Your task to perform on an android device: Open Google Chrome and open the bookmarks view Image 0: 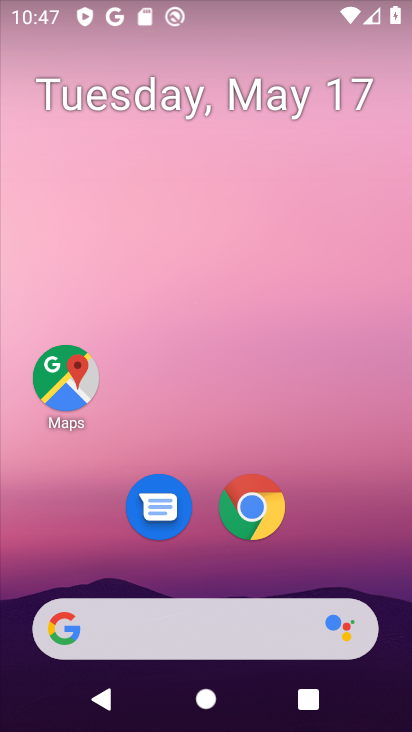
Step 0: click (266, 502)
Your task to perform on an android device: Open Google Chrome and open the bookmarks view Image 1: 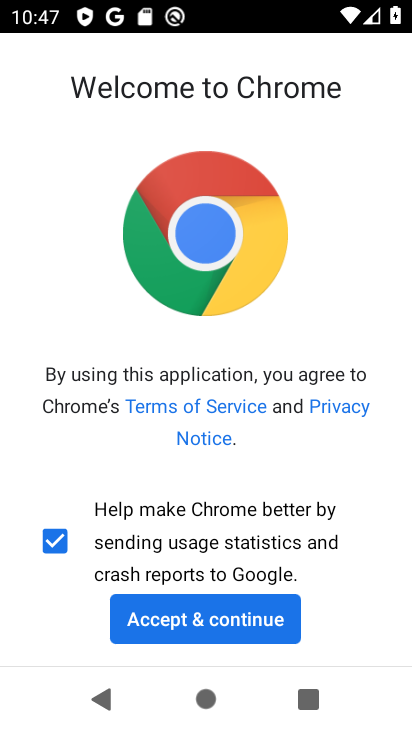
Step 1: click (259, 612)
Your task to perform on an android device: Open Google Chrome and open the bookmarks view Image 2: 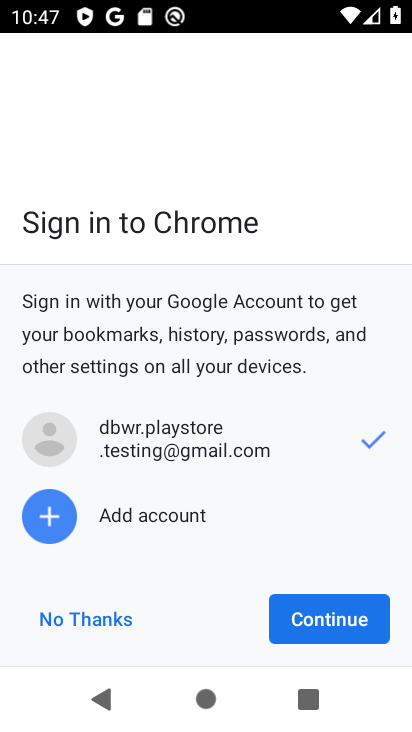
Step 2: click (300, 616)
Your task to perform on an android device: Open Google Chrome and open the bookmarks view Image 3: 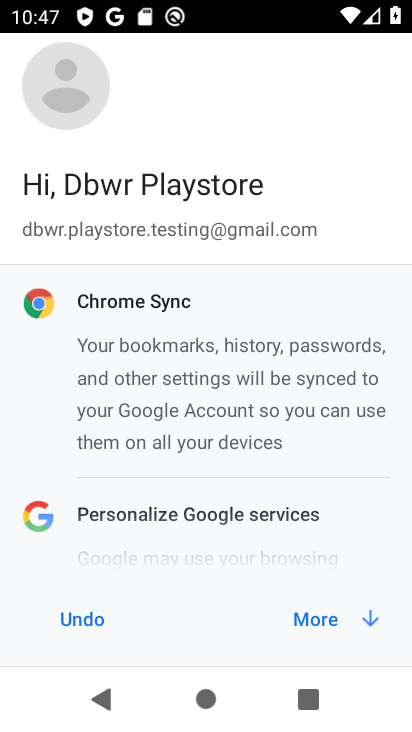
Step 3: click (300, 616)
Your task to perform on an android device: Open Google Chrome and open the bookmarks view Image 4: 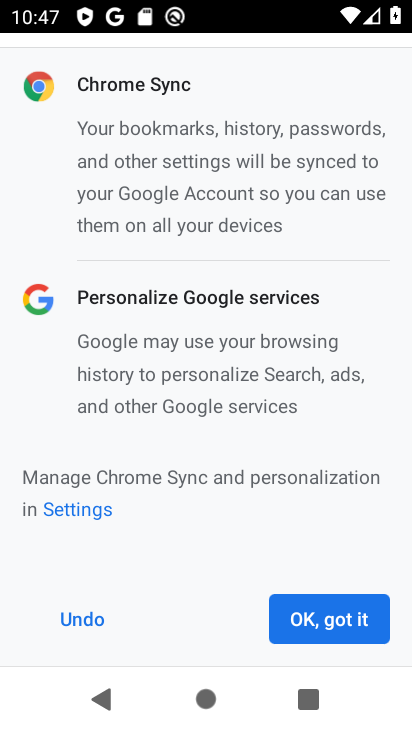
Step 4: click (306, 616)
Your task to perform on an android device: Open Google Chrome and open the bookmarks view Image 5: 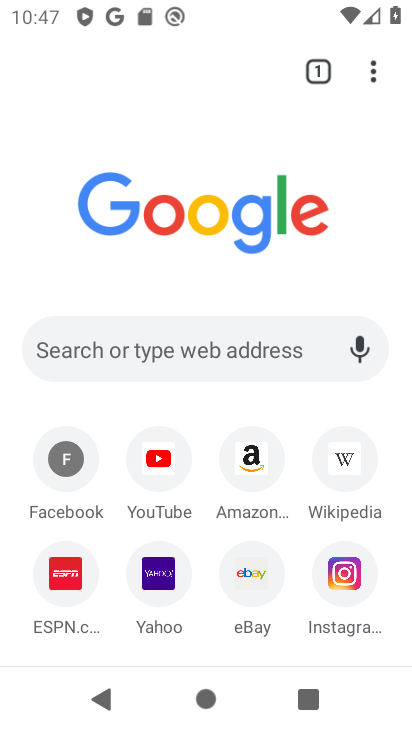
Step 5: task complete